Your task to perform on an android device: Go to calendar. Show me events next week Image 0: 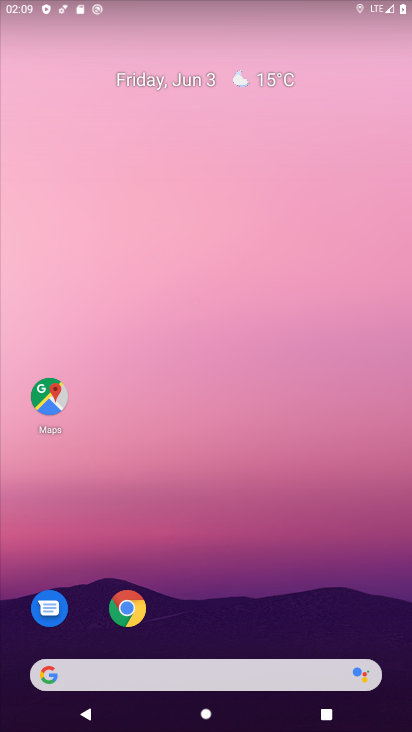
Step 0: drag from (291, 587) to (245, 216)
Your task to perform on an android device: Go to calendar. Show me events next week Image 1: 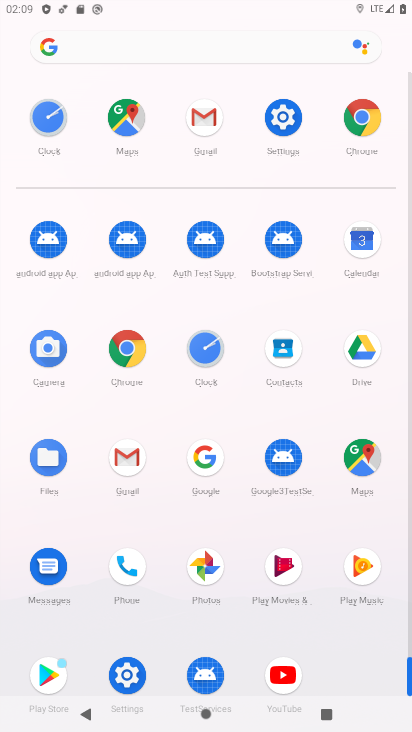
Step 1: click (364, 239)
Your task to perform on an android device: Go to calendar. Show me events next week Image 2: 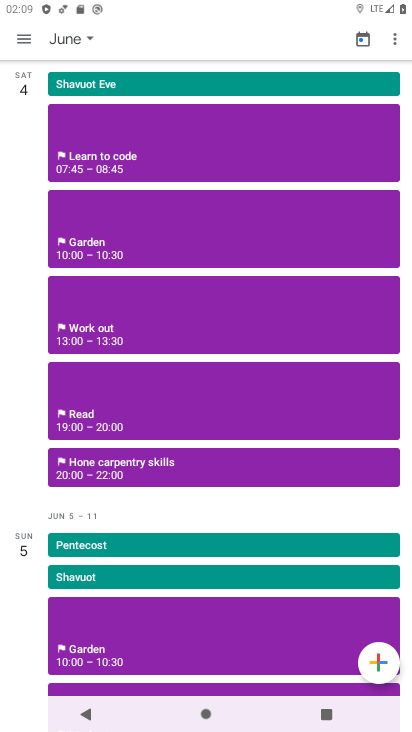
Step 2: click (27, 35)
Your task to perform on an android device: Go to calendar. Show me events next week Image 3: 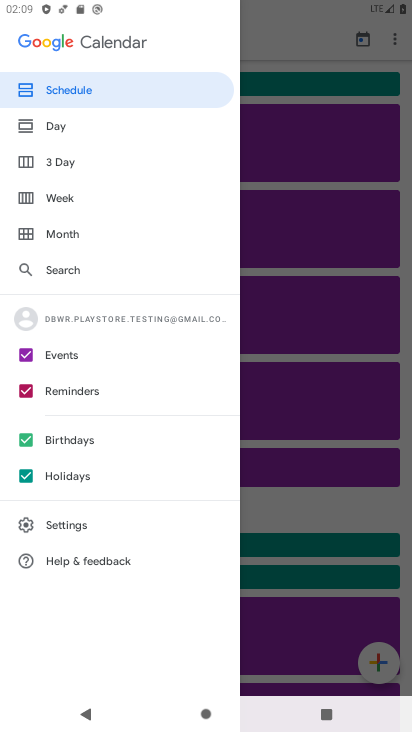
Step 3: click (65, 196)
Your task to perform on an android device: Go to calendar. Show me events next week Image 4: 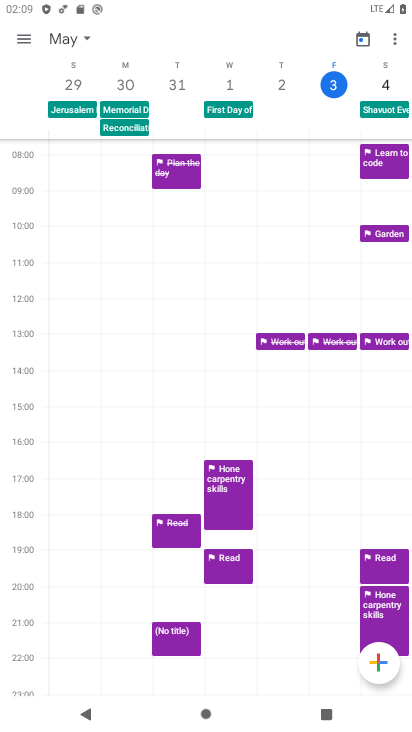
Step 4: task complete